Your task to perform on an android device: turn on airplane mode Image 0: 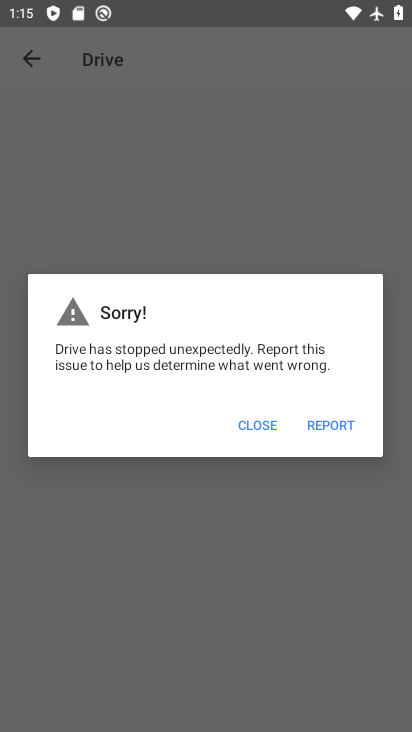
Step 0: press home button
Your task to perform on an android device: turn on airplane mode Image 1: 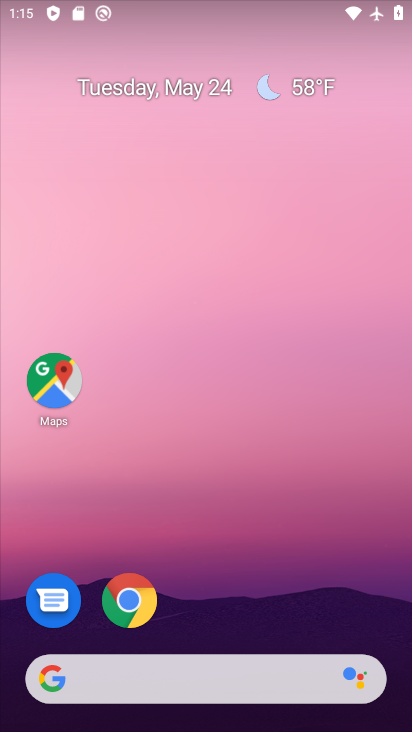
Step 1: drag from (261, 488) to (180, 45)
Your task to perform on an android device: turn on airplane mode Image 2: 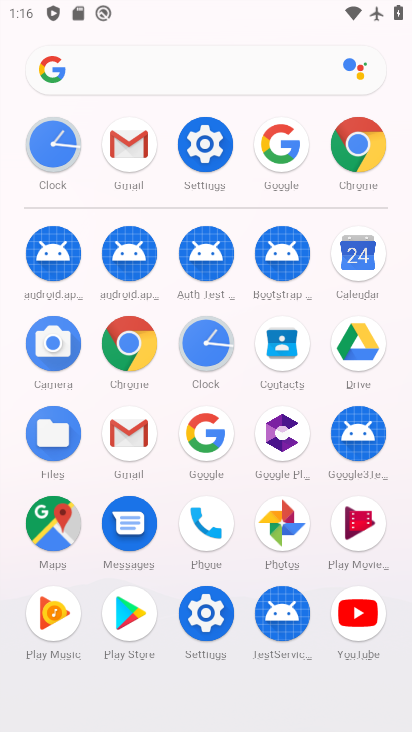
Step 2: click (199, 142)
Your task to perform on an android device: turn on airplane mode Image 3: 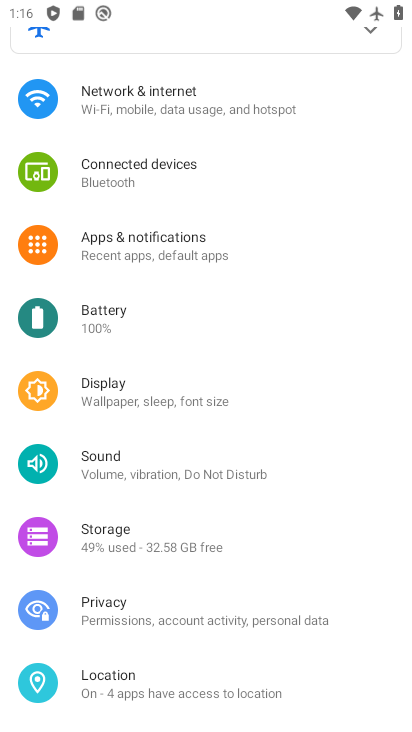
Step 3: click (205, 111)
Your task to perform on an android device: turn on airplane mode Image 4: 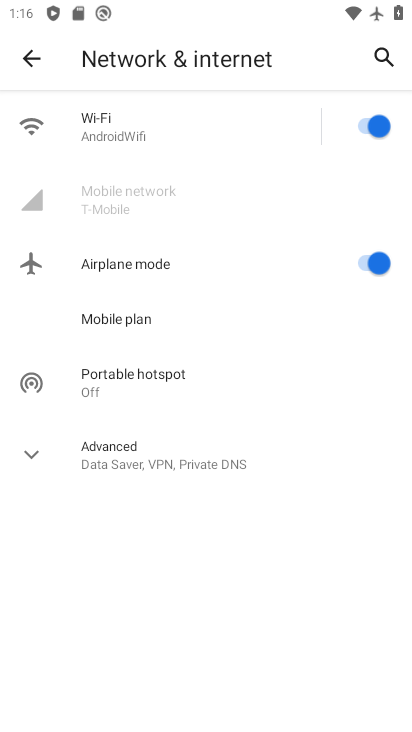
Step 4: task complete